Your task to perform on an android device: turn on location history Image 0: 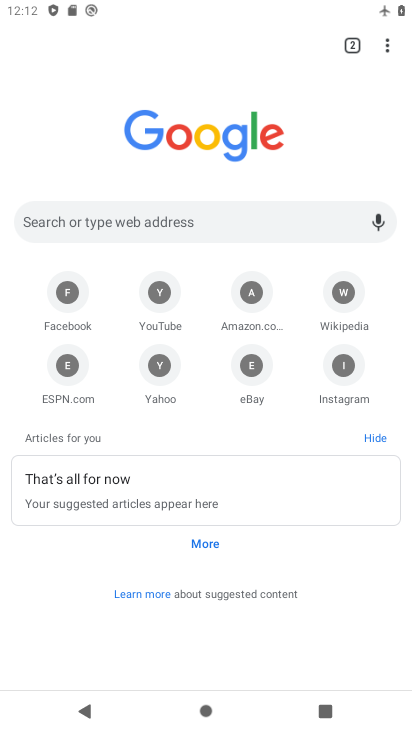
Step 0: press home button
Your task to perform on an android device: turn on location history Image 1: 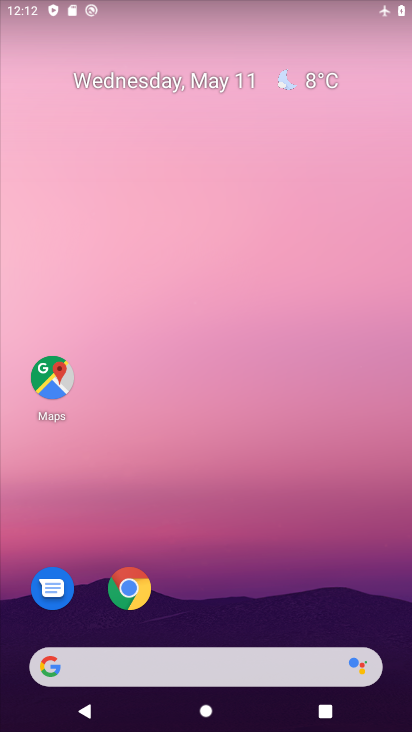
Step 1: drag from (209, 640) to (261, 148)
Your task to perform on an android device: turn on location history Image 2: 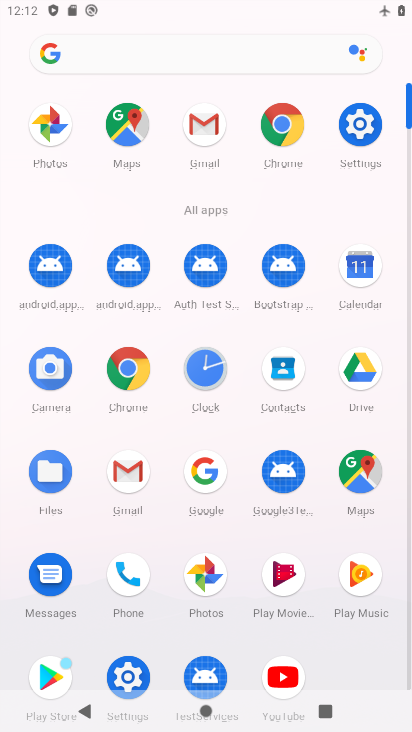
Step 2: click (137, 672)
Your task to perform on an android device: turn on location history Image 3: 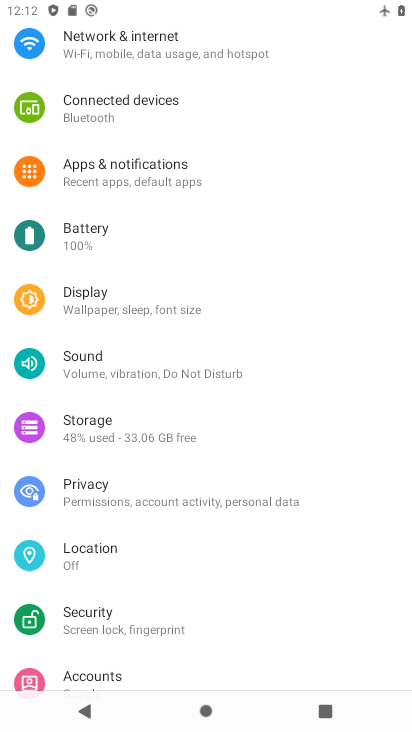
Step 3: click (100, 564)
Your task to perform on an android device: turn on location history Image 4: 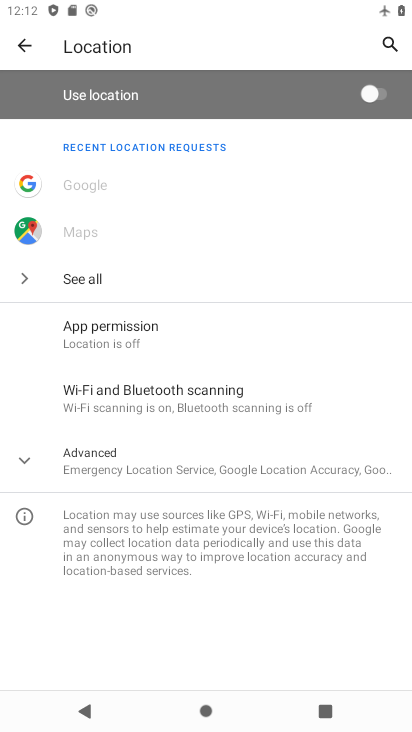
Step 4: click (149, 456)
Your task to perform on an android device: turn on location history Image 5: 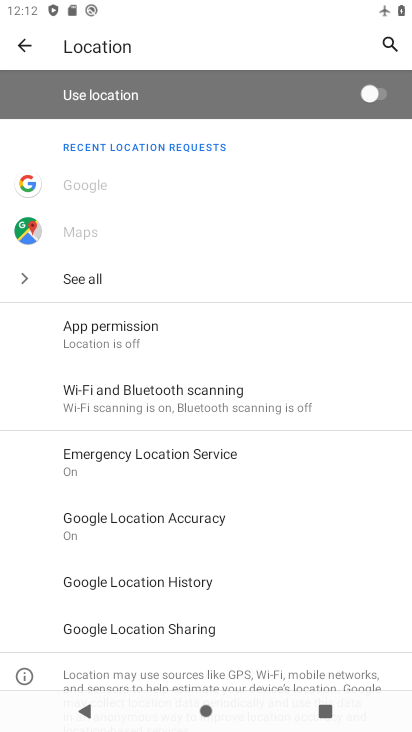
Step 5: click (190, 589)
Your task to perform on an android device: turn on location history Image 6: 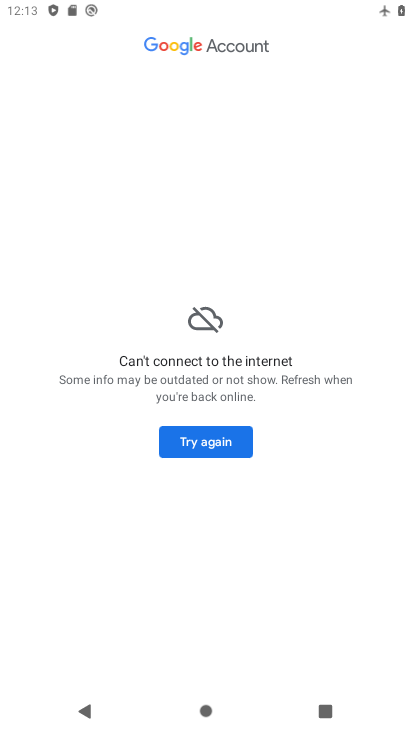
Step 6: click (216, 444)
Your task to perform on an android device: turn on location history Image 7: 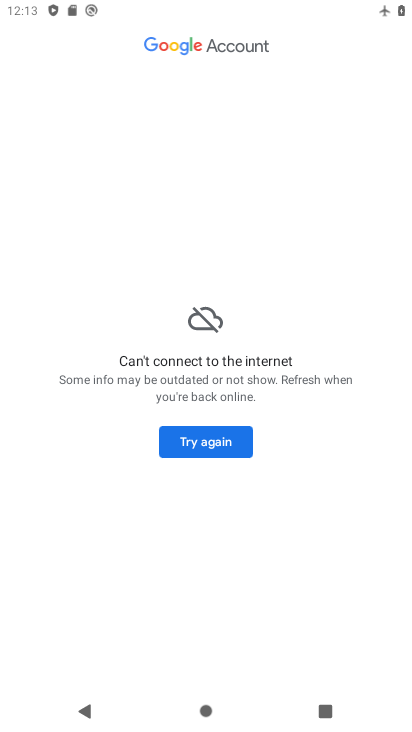
Step 7: task complete